Your task to perform on an android device: Go to Wikipedia Image 0: 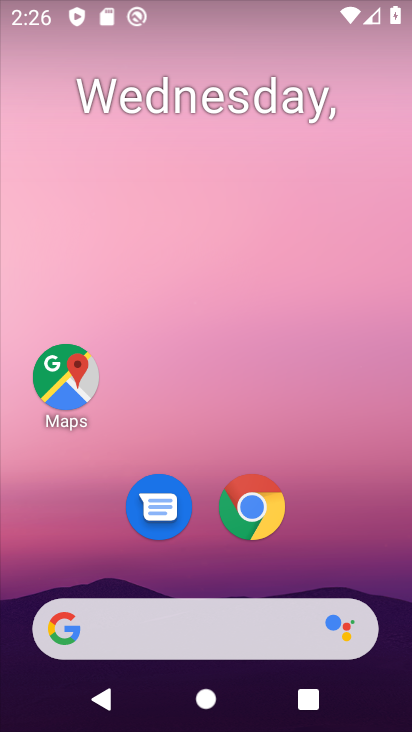
Step 0: click (236, 500)
Your task to perform on an android device: Go to Wikipedia Image 1: 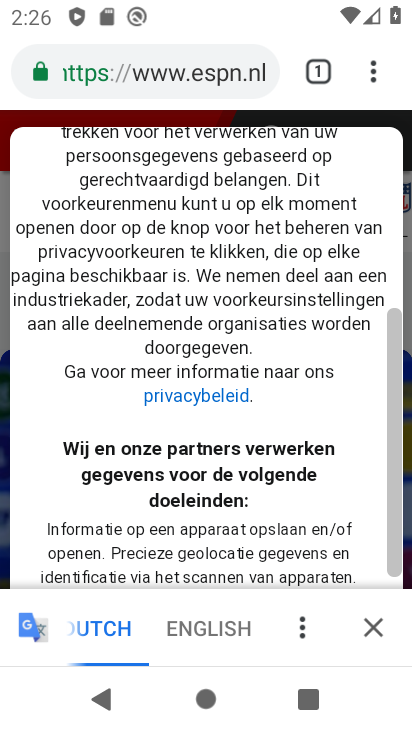
Step 1: click (328, 84)
Your task to perform on an android device: Go to Wikipedia Image 2: 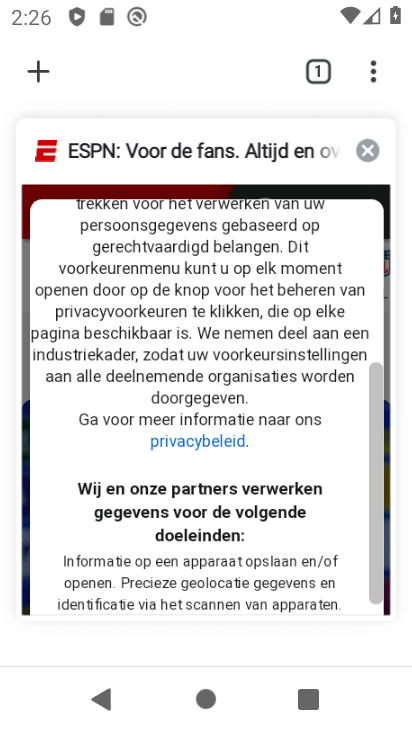
Step 2: click (363, 159)
Your task to perform on an android device: Go to Wikipedia Image 3: 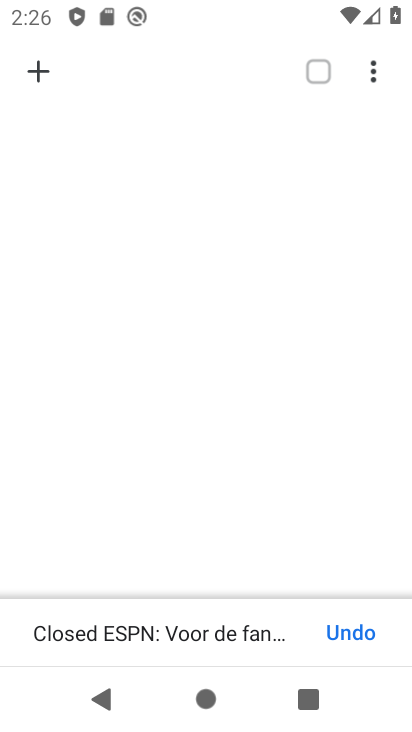
Step 3: click (39, 79)
Your task to perform on an android device: Go to Wikipedia Image 4: 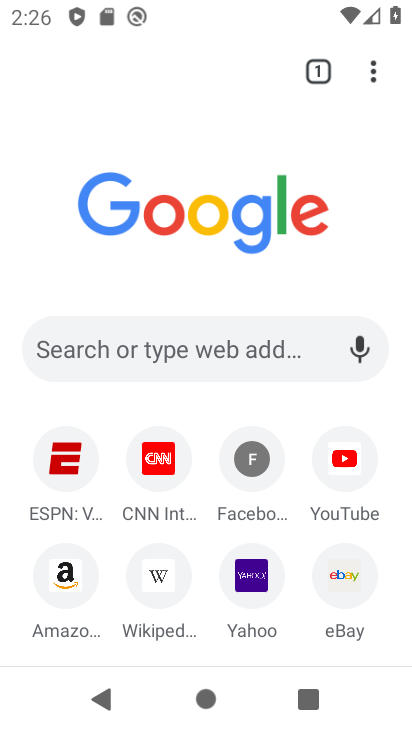
Step 4: click (149, 576)
Your task to perform on an android device: Go to Wikipedia Image 5: 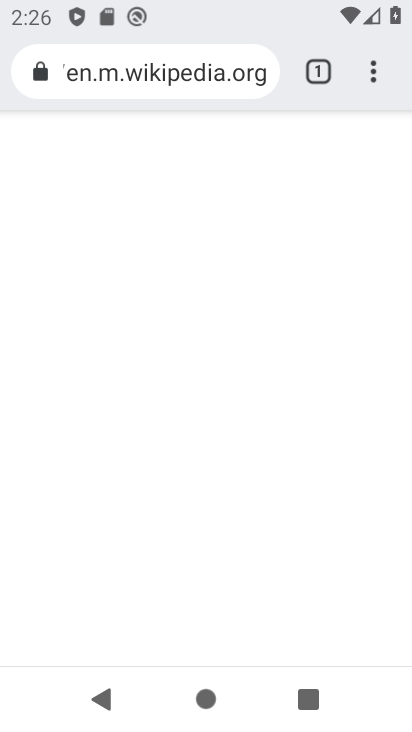
Step 5: task complete